Your task to perform on an android device: Show me popular videos on Youtube Image 0: 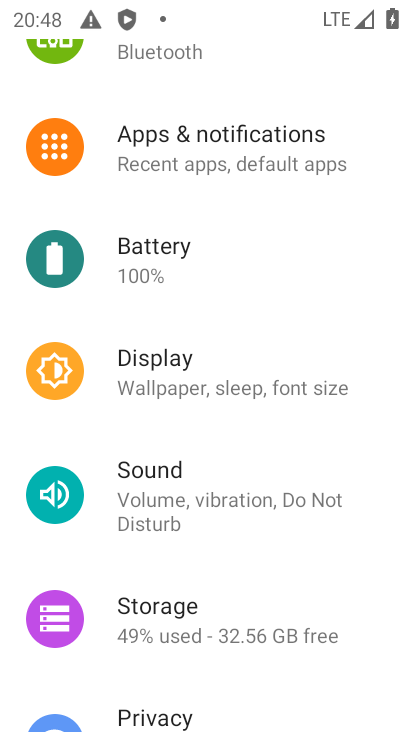
Step 0: press home button
Your task to perform on an android device: Show me popular videos on Youtube Image 1: 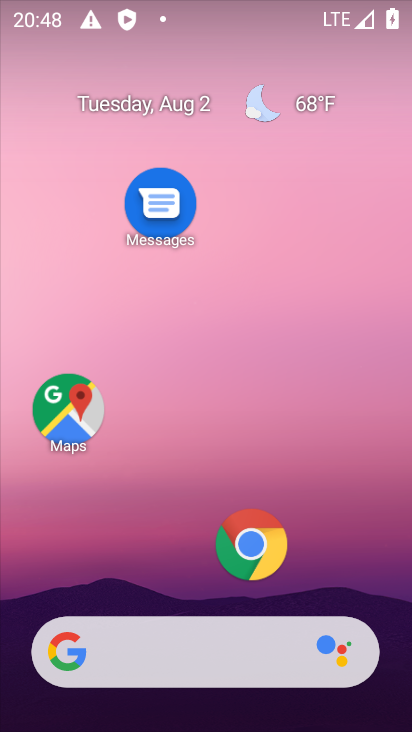
Step 1: drag from (187, 582) to (197, 181)
Your task to perform on an android device: Show me popular videos on Youtube Image 2: 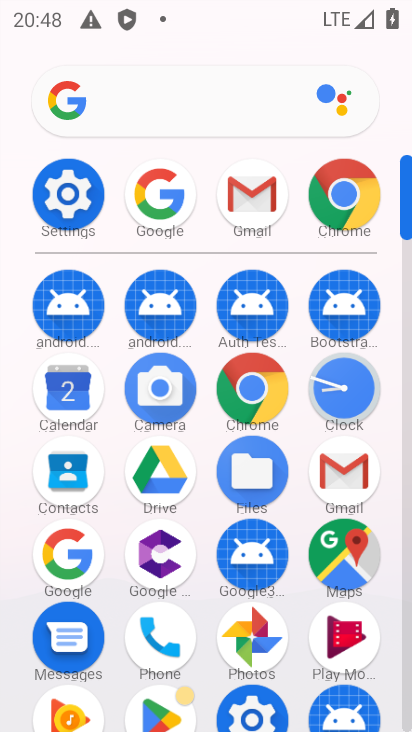
Step 2: drag from (116, 560) to (161, 204)
Your task to perform on an android device: Show me popular videos on Youtube Image 3: 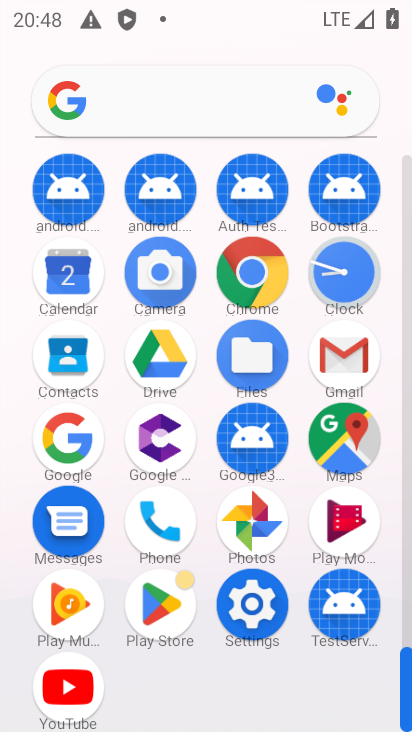
Step 3: click (73, 682)
Your task to perform on an android device: Show me popular videos on Youtube Image 4: 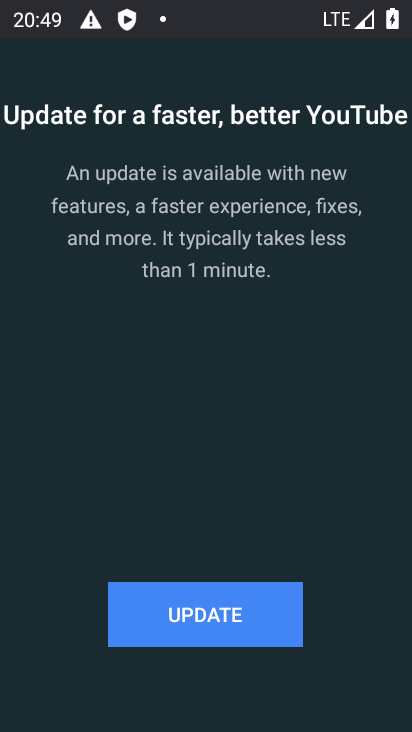
Step 4: click (146, 629)
Your task to perform on an android device: Show me popular videos on Youtube Image 5: 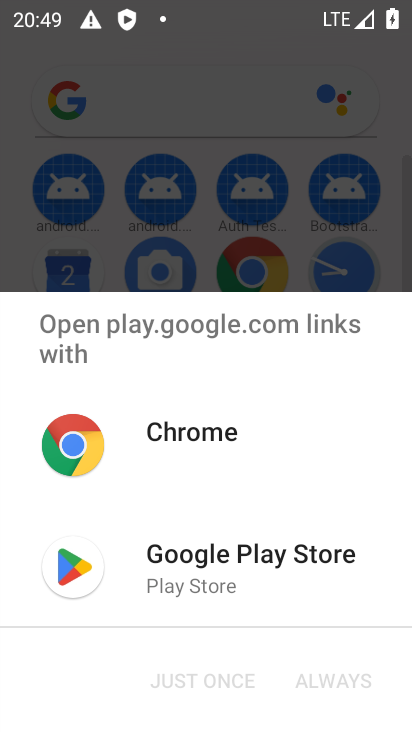
Step 5: click (206, 580)
Your task to perform on an android device: Show me popular videos on Youtube Image 6: 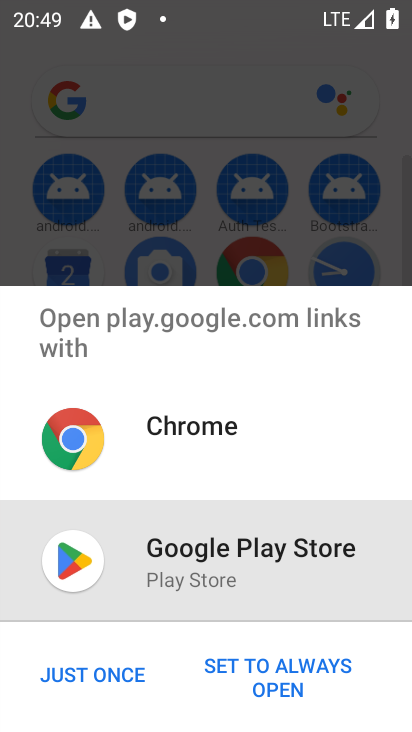
Step 6: click (101, 678)
Your task to perform on an android device: Show me popular videos on Youtube Image 7: 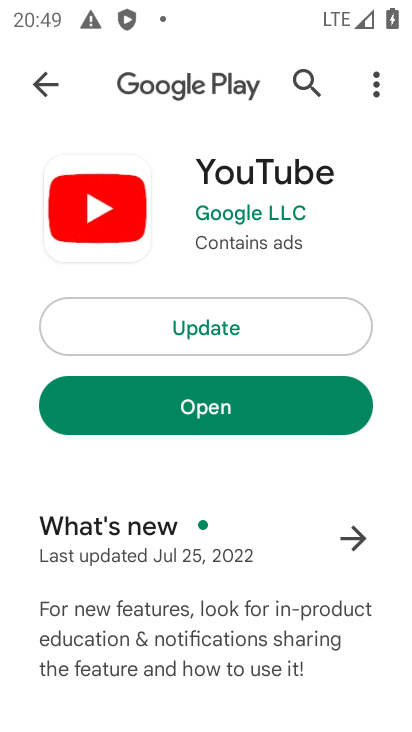
Step 7: click (232, 333)
Your task to perform on an android device: Show me popular videos on Youtube Image 8: 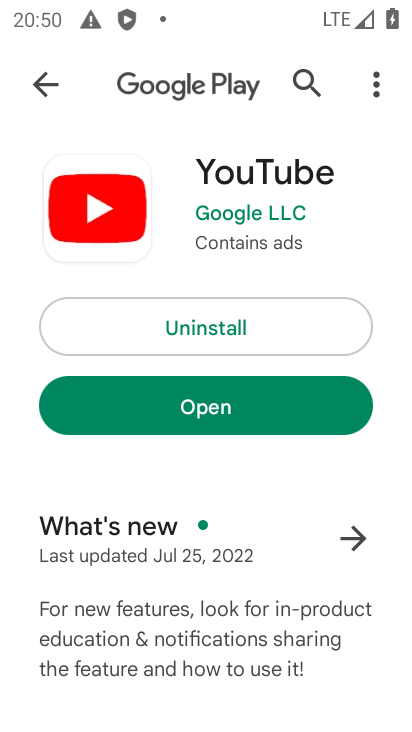
Step 8: click (237, 419)
Your task to perform on an android device: Show me popular videos on Youtube Image 9: 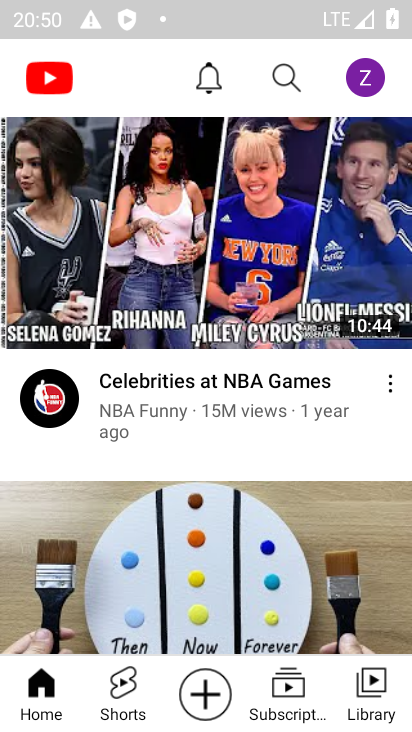
Step 9: click (281, 65)
Your task to perform on an android device: Show me popular videos on Youtube Image 10: 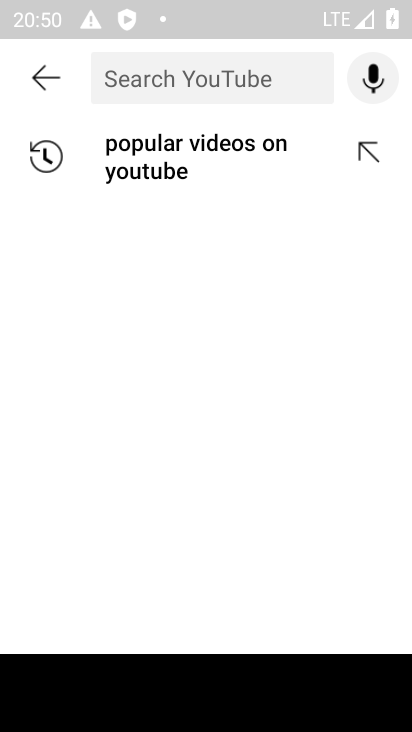
Step 10: click (191, 183)
Your task to perform on an android device: Show me popular videos on Youtube Image 11: 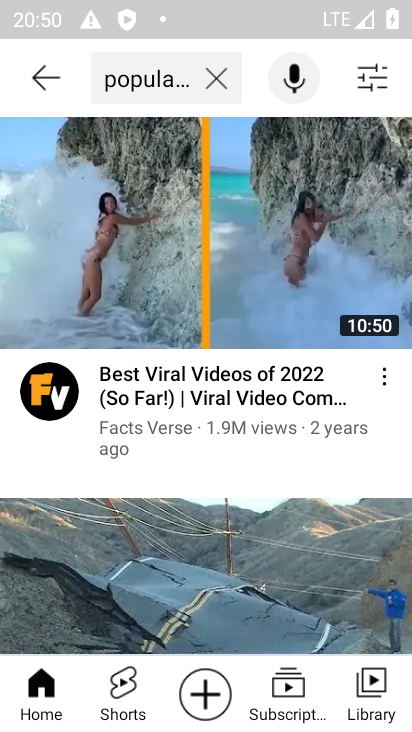
Step 11: task complete